Your task to perform on an android device: Go to Google Image 0: 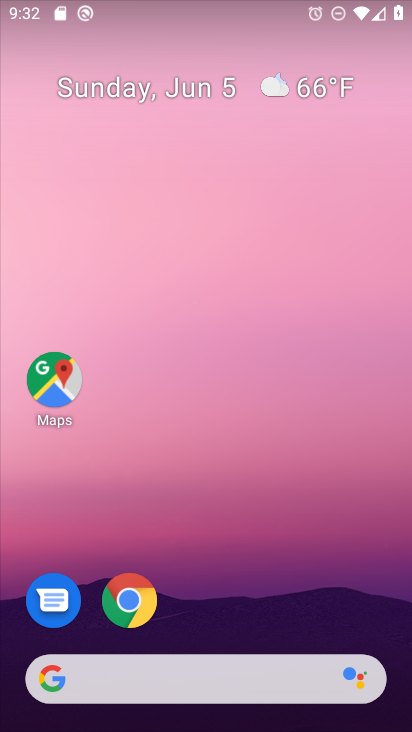
Step 0: drag from (318, 590) to (246, 22)
Your task to perform on an android device: Go to Google Image 1: 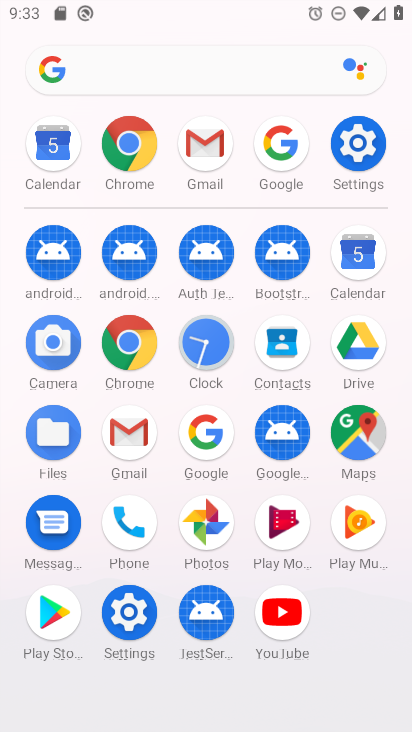
Step 1: click (202, 446)
Your task to perform on an android device: Go to Google Image 2: 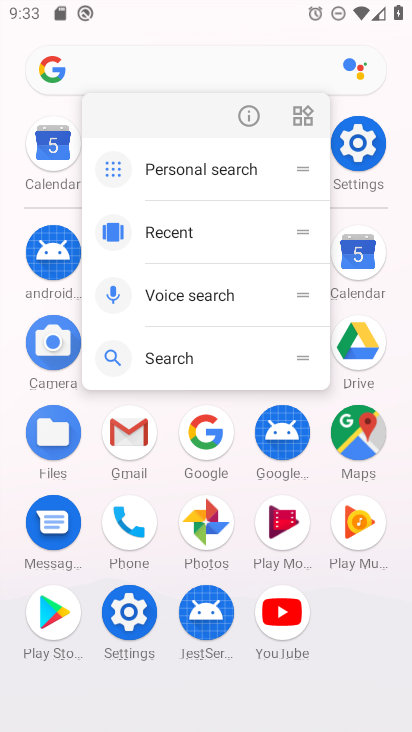
Step 2: click (202, 446)
Your task to perform on an android device: Go to Google Image 3: 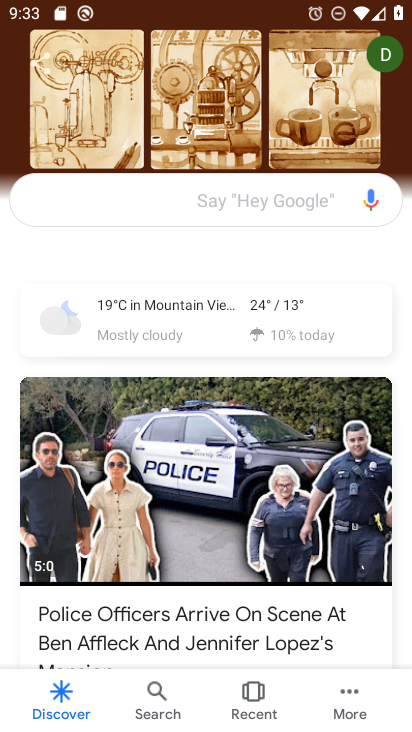
Step 3: task complete